Your task to perform on an android device: Open the web browser Image 0: 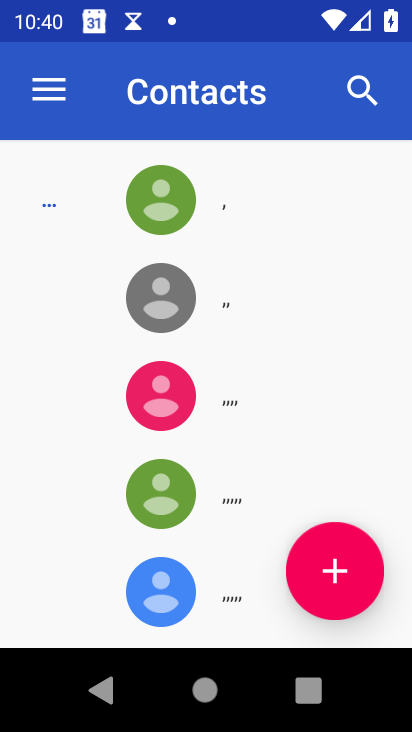
Step 0: press home button
Your task to perform on an android device: Open the web browser Image 1: 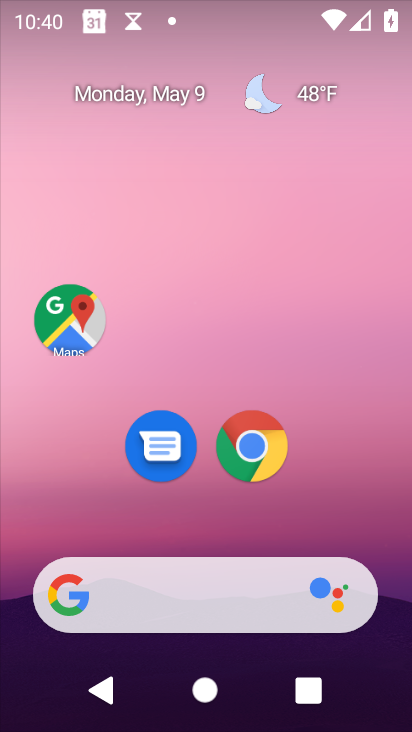
Step 1: click (261, 454)
Your task to perform on an android device: Open the web browser Image 2: 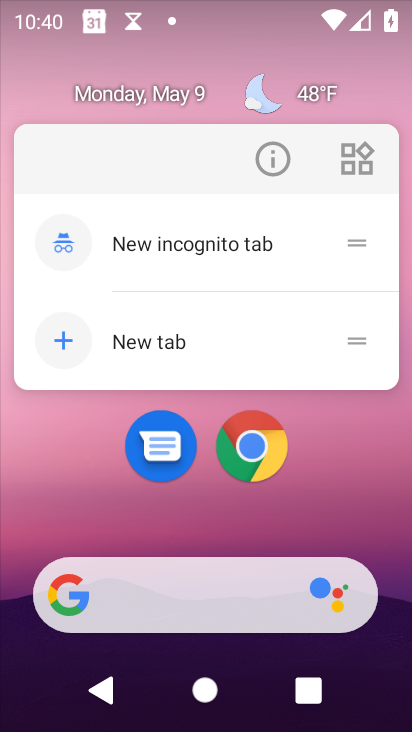
Step 2: click (261, 454)
Your task to perform on an android device: Open the web browser Image 3: 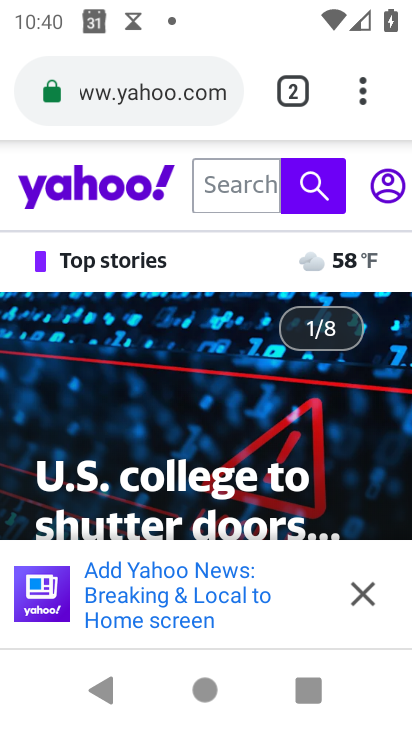
Step 3: task complete